Your task to perform on an android device: set the timer Image 0: 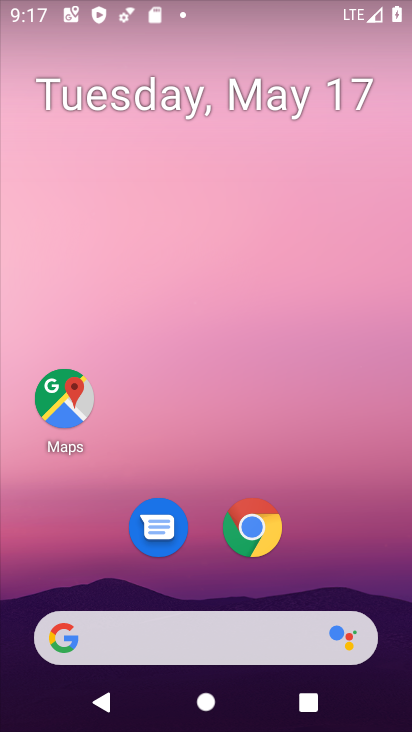
Step 0: press home button
Your task to perform on an android device: set the timer Image 1: 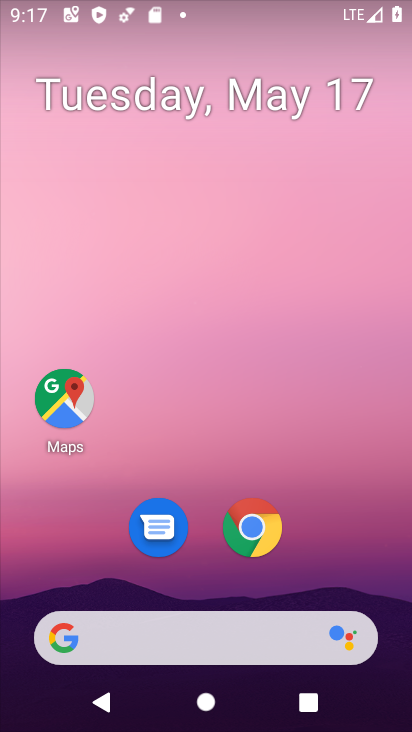
Step 1: drag from (182, 638) to (310, 155)
Your task to perform on an android device: set the timer Image 2: 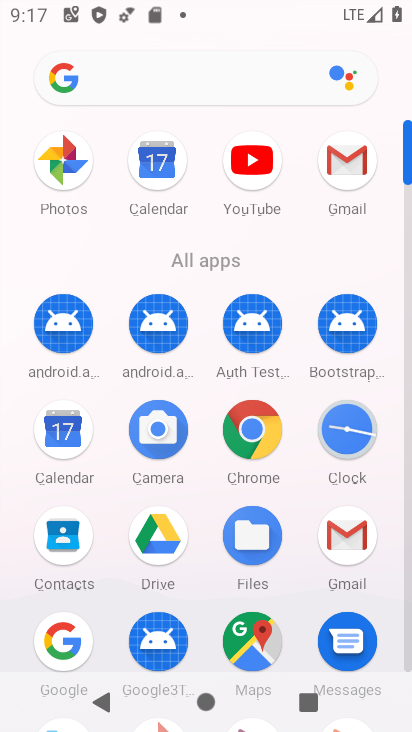
Step 2: click (341, 434)
Your task to perform on an android device: set the timer Image 3: 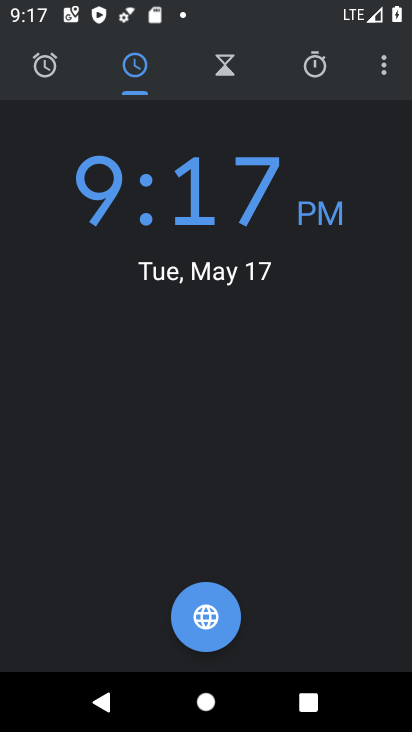
Step 3: click (219, 70)
Your task to perform on an android device: set the timer Image 4: 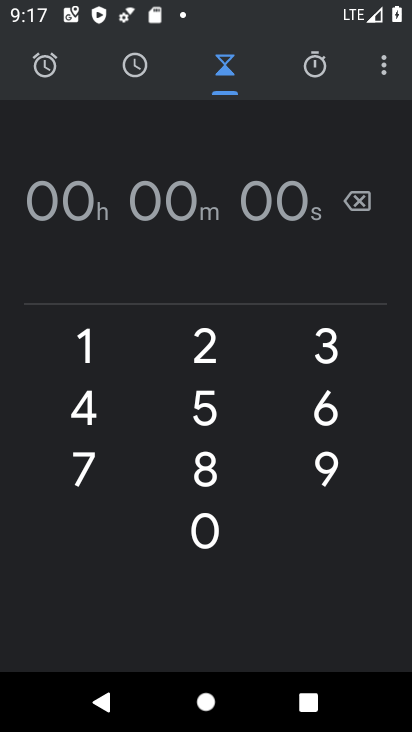
Step 4: click (87, 347)
Your task to perform on an android device: set the timer Image 5: 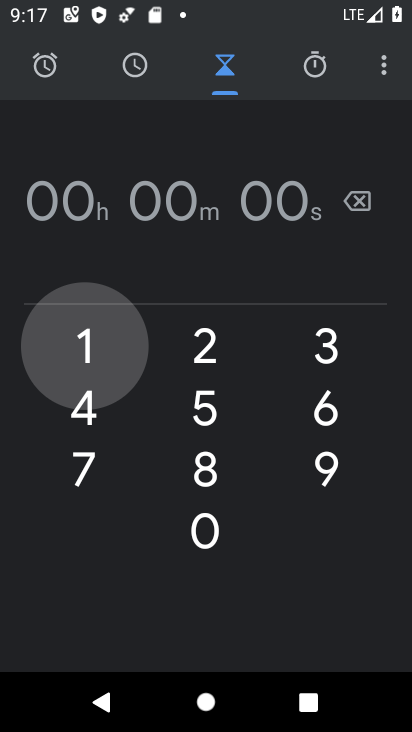
Step 5: click (87, 347)
Your task to perform on an android device: set the timer Image 6: 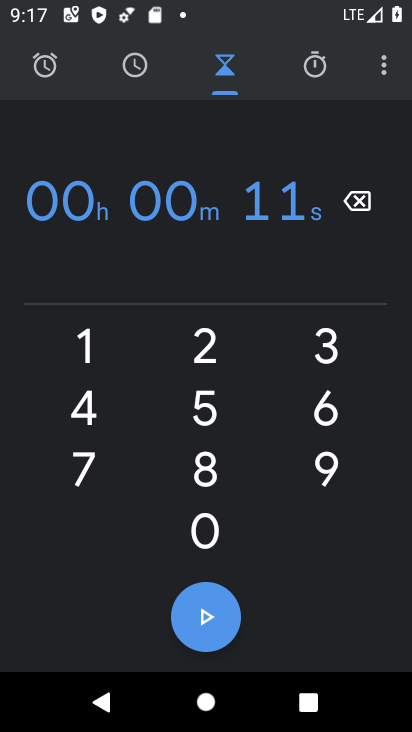
Step 6: click (220, 619)
Your task to perform on an android device: set the timer Image 7: 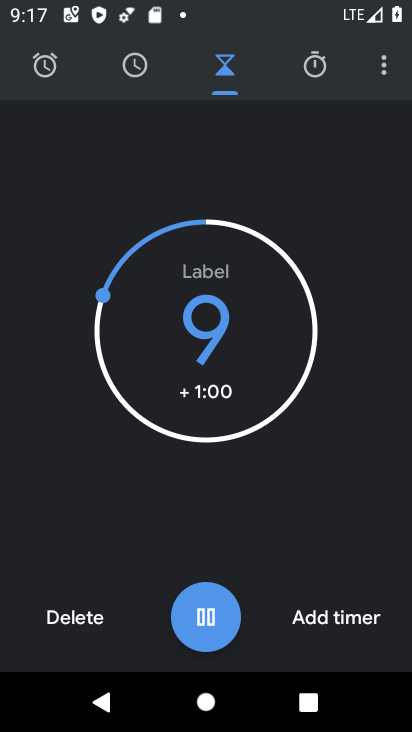
Step 7: click (209, 608)
Your task to perform on an android device: set the timer Image 8: 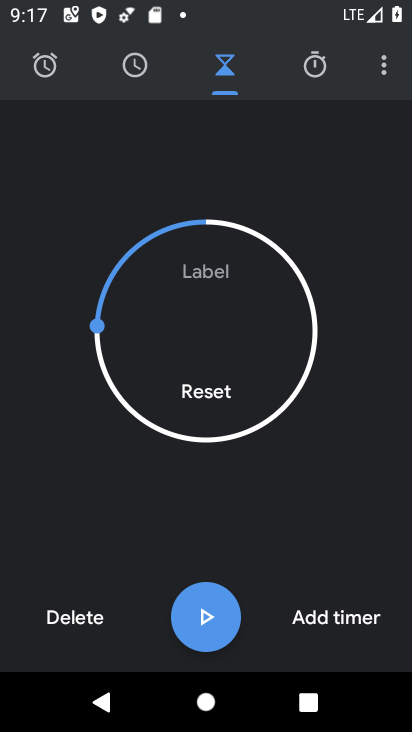
Step 8: task complete